Your task to perform on an android device: delete browsing data in the chrome app Image 0: 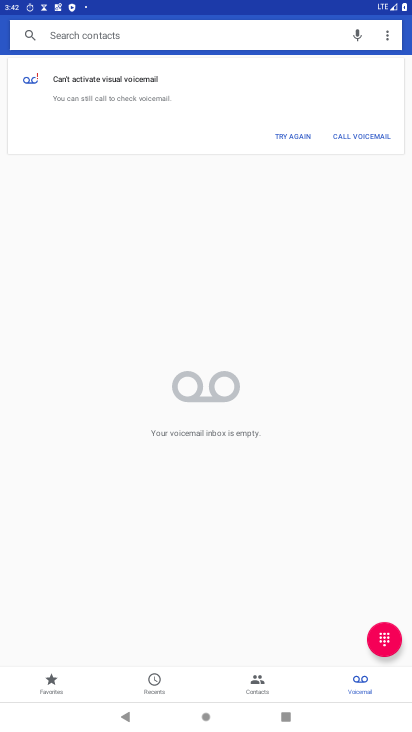
Step 0: press home button
Your task to perform on an android device: delete browsing data in the chrome app Image 1: 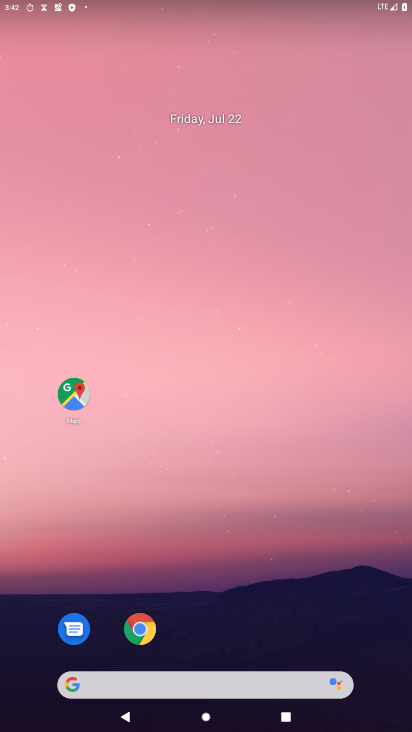
Step 1: drag from (185, 683) to (292, 134)
Your task to perform on an android device: delete browsing data in the chrome app Image 2: 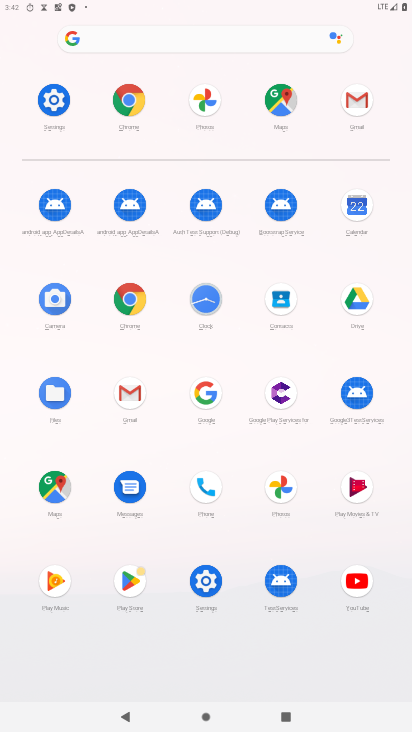
Step 2: click (130, 291)
Your task to perform on an android device: delete browsing data in the chrome app Image 3: 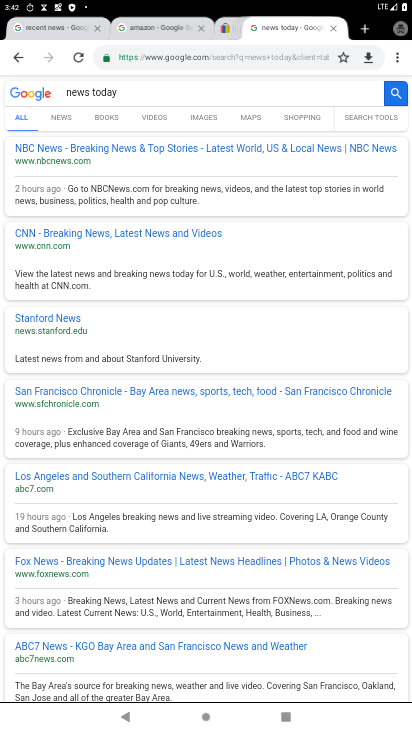
Step 3: drag from (397, 60) to (282, 351)
Your task to perform on an android device: delete browsing data in the chrome app Image 4: 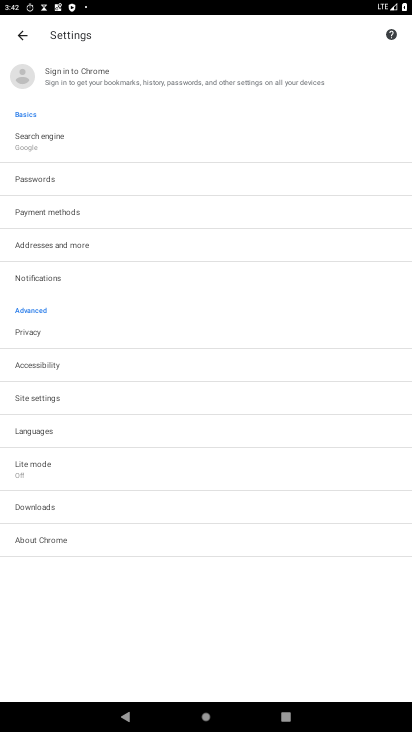
Step 4: click (61, 334)
Your task to perform on an android device: delete browsing data in the chrome app Image 5: 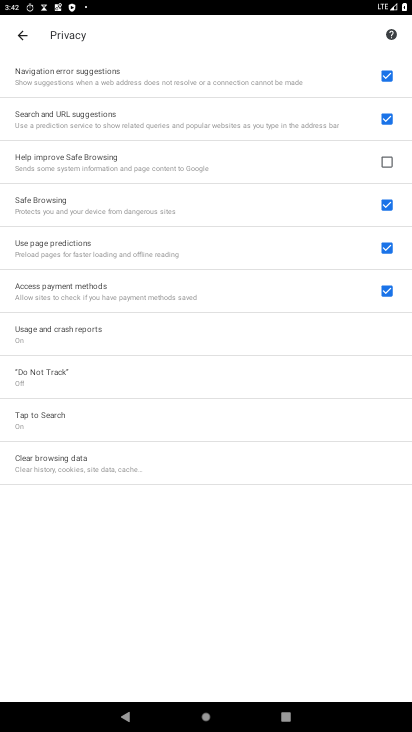
Step 5: click (71, 464)
Your task to perform on an android device: delete browsing data in the chrome app Image 6: 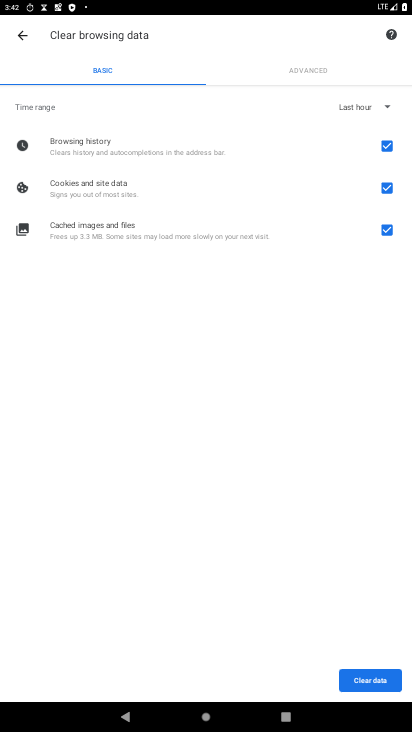
Step 6: click (349, 678)
Your task to perform on an android device: delete browsing data in the chrome app Image 7: 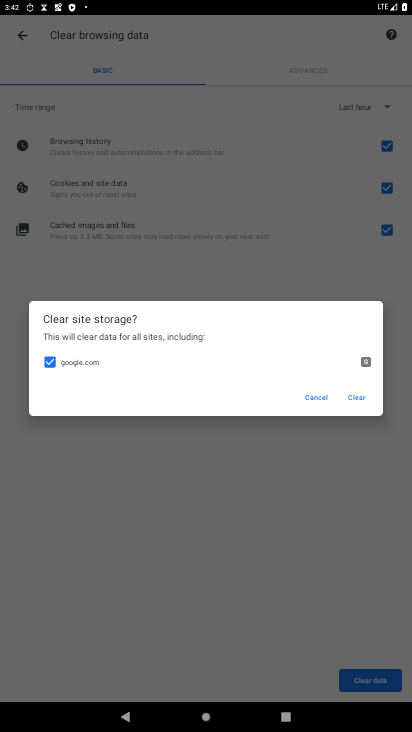
Step 7: click (359, 396)
Your task to perform on an android device: delete browsing data in the chrome app Image 8: 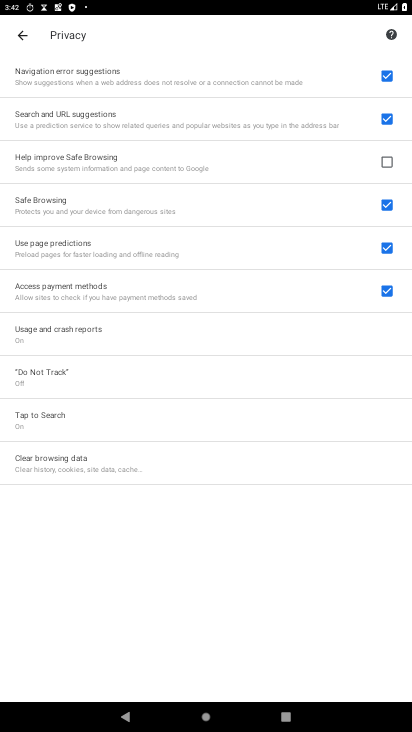
Step 8: task complete